Your task to perform on an android device: turn on sleep mode Image 0: 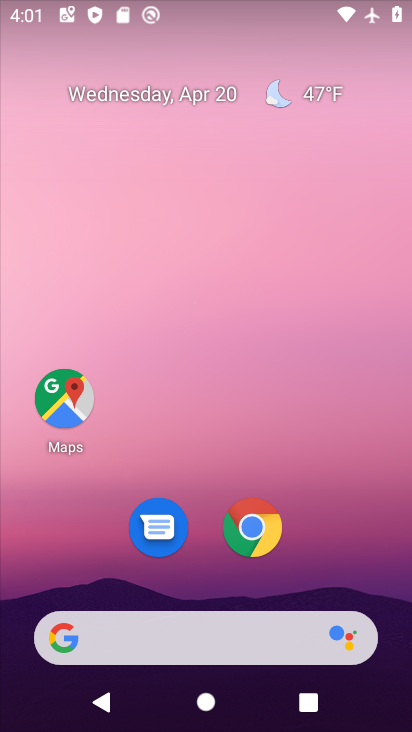
Step 0: drag from (292, 475) to (292, 96)
Your task to perform on an android device: turn on sleep mode Image 1: 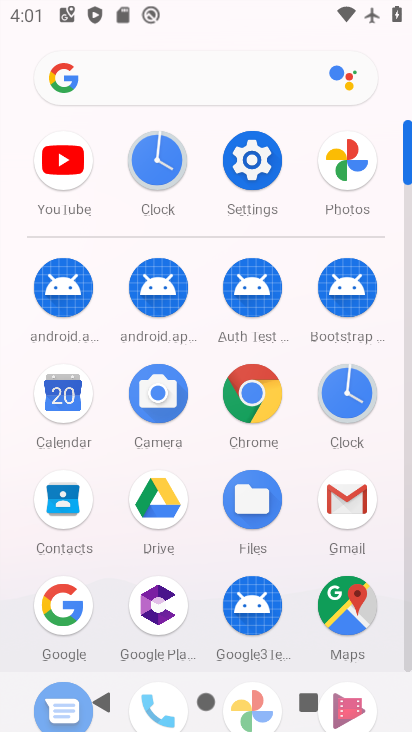
Step 1: click (239, 170)
Your task to perform on an android device: turn on sleep mode Image 2: 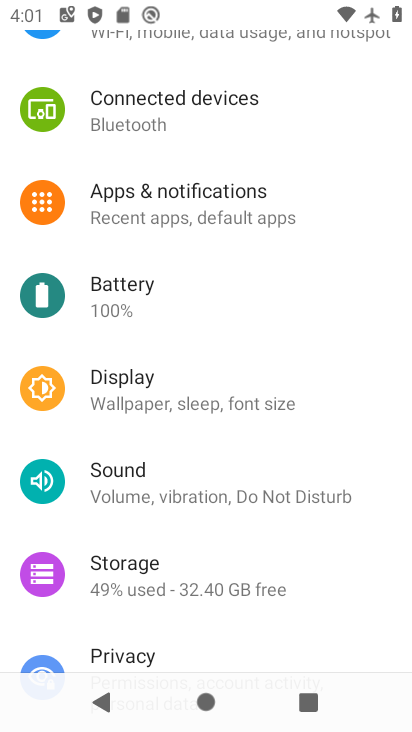
Step 2: drag from (241, 151) to (247, 371)
Your task to perform on an android device: turn on sleep mode Image 3: 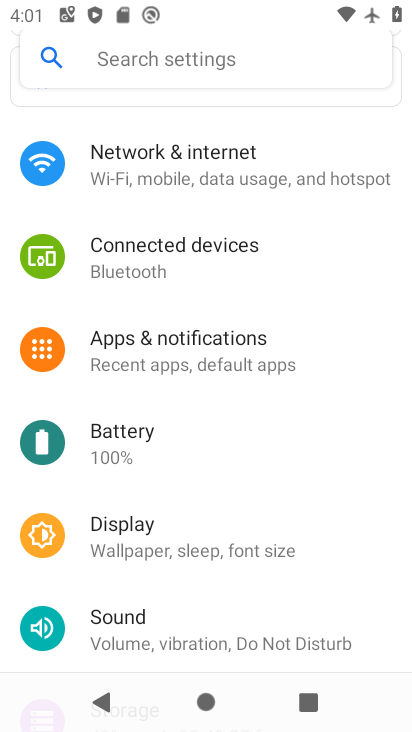
Step 3: click (172, 542)
Your task to perform on an android device: turn on sleep mode Image 4: 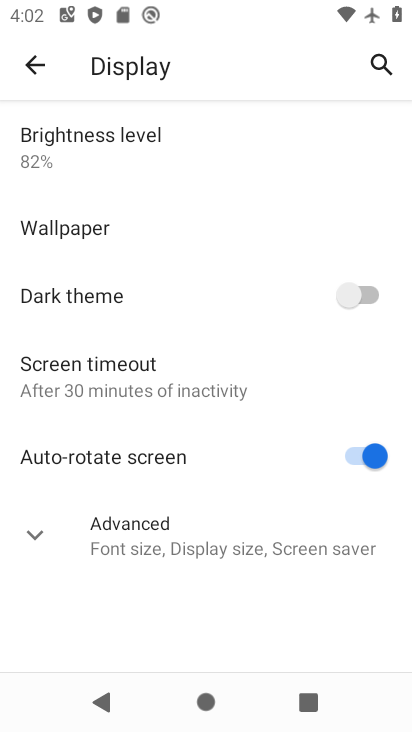
Step 4: click (38, 534)
Your task to perform on an android device: turn on sleep mode Image 5: 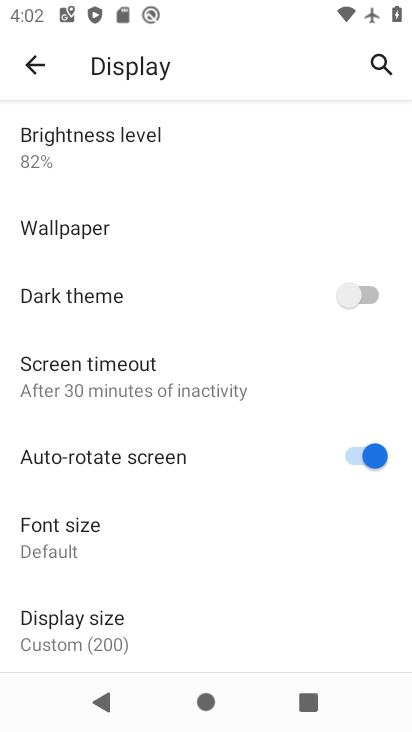
Step 5: task complete